Your task to perform on an android device: Clear the cart on ebay.com. Search for "usb-b" on ebay.com, select the first entry, and add it to the cart. Image 0: 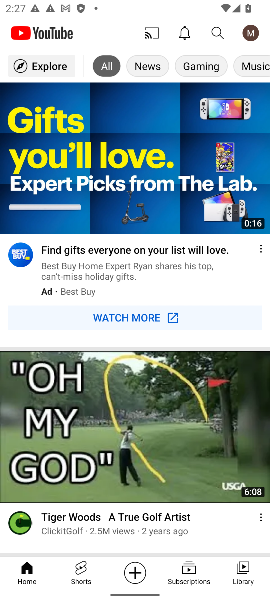
Step 0: press home button
Your task to perform on an android device: Clear the cart on ebay.com. Search for "usb-b" on ebay.com, select the first entry, and add it to the cart. Image 1: 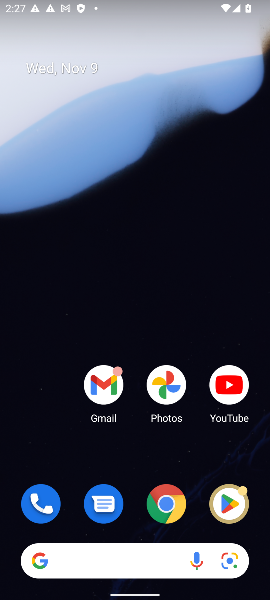
Step 1: click (169, 498)
Your task to perform on an android device: Clear the cart on ebay.com. Search for "usb-b" on ebay.com, select the first entry, and add it to the cart. Image 2: 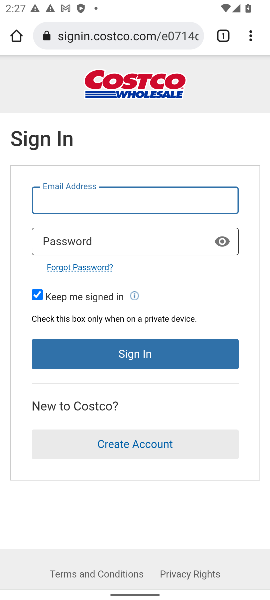
Step 2: click (69, 40)
Your task to perform on an android device: Clear the cart on ebay.com. Search for "usb-b" on ebay.com, select the first entry, and add it to the cart. Image 3: 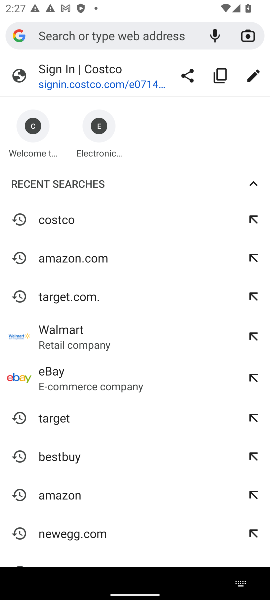
Step 3: click (54, 375)
Your task to perform on an android device: Clear the cart on ebay.com. Search for "usb-b" on ebay.com, select the first entry, and add it to the cart. Image 4: 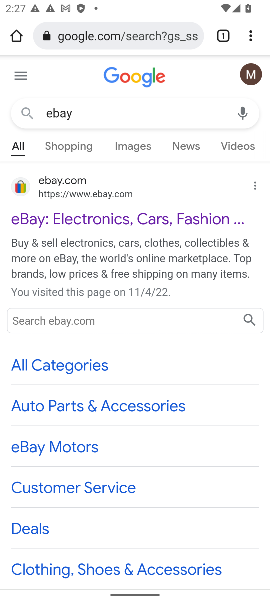
Step 4: click (59, 218)
Your task to perform on an android device: Clear the cart on ebay.com. Search for "usb-b" on ebay.com, select the first entry, and add it to the cart. Image 5: 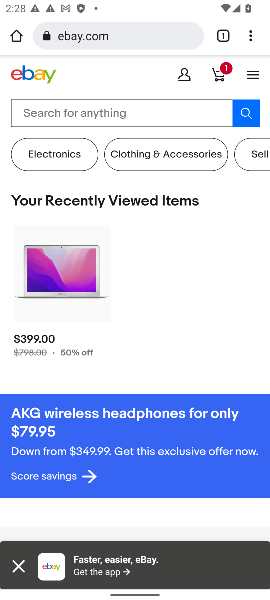
Step 5: click (220, 76)
Your task to perform on an android device: Clear the cart on ebay.com. Search for "usb-b" on ebay.com, select the first entry, and add it to the cart. Image 6: 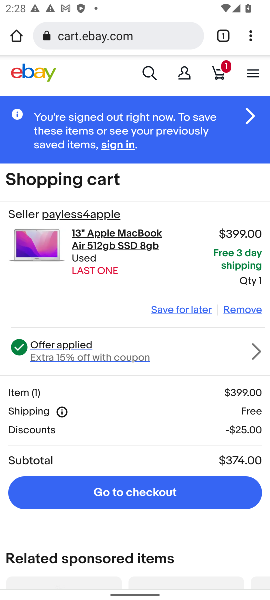
Step 6: click (230, 312)
Your task to perform on an android device: Clear the cart on ebay.com. Search for "usb-b" on ebay.com, select the first entry, and add it to the cart. Image 7: 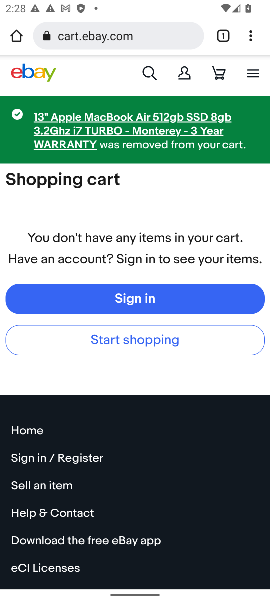
Step 7: click (151, 75)
Your task to perform on an android device: Clear the cart on ebay.com. Search for "usb-b" on ebay.com, select the first entry, and add it to the cart. Image 8: 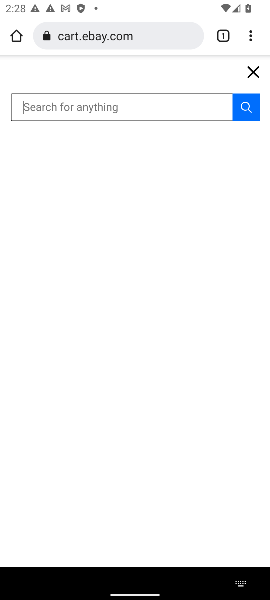
Step 8: type "usb-b"
Your task to perform on an android device: Clear the cart on ebay.com. Search for "usb-b" on ebay.com, select the first entry, and add it to the cart. Image 9: 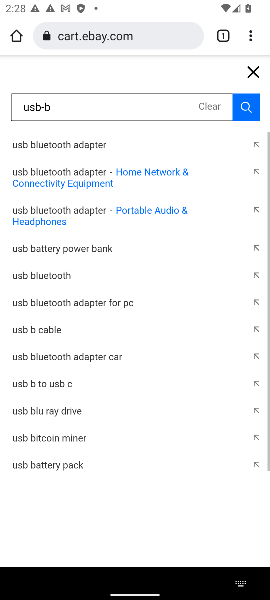
Step 9: click (253, 108)
Your task to perform on an android device: Clear the cart on ebay.com. Search for "usb-b" on ebay.com, select the first entry, and add it to the cart. Image 10: 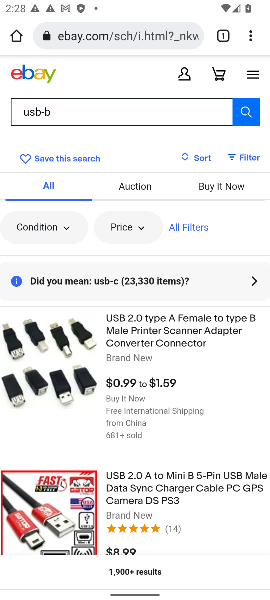
Step 10: click (47, 382)
Your task to perform on an android device: Clear the cart on ebay.com. Search for "usb-b" on ebay.com, select the first entry, and add it to the cart. Image 11: 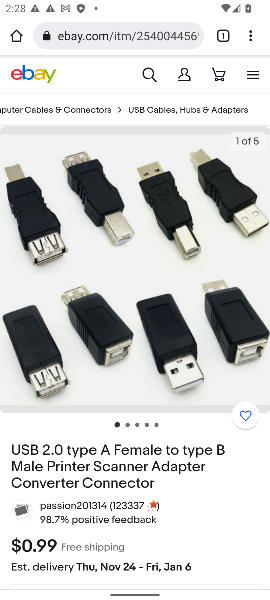
Step 11: drag from (136, 480) to (128, 241)
Your task to perform on an android device: Clear the cart on ebay.com. Search for "usb-b" on ebay.com, select the first entry, and add it to the cart. Image 12: 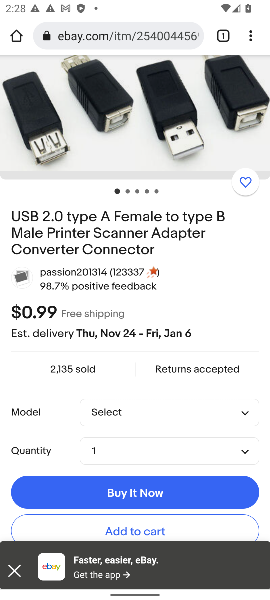
Step 12: drag from (142, 386) to (136, 199)
Your task to perform on an android device: Clear the cart on ebay.com. Search for "usb-b" on ebay.com, select the first entry, and add it to the cart. Image 13: 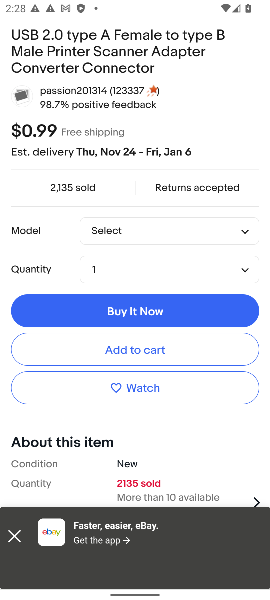
Step 13: click (140, 346)
Your task to perform on an android device: Clear the cart on ebay.com. Search for "usb-b" on ebay.com, select the first entry, and add it to the cart. Image 14: 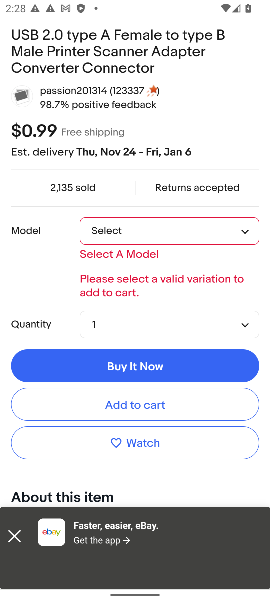
Step 14: click (248, 226)
Your task to perform on an android device: Clear the cart on ebay.com. Search for "usb-b" on ebay.com, select the first entry, and add it to the cart. Image 15: 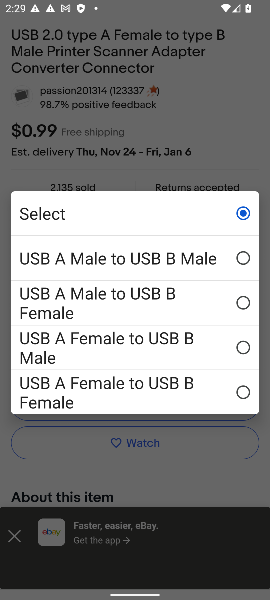
Step 15: click (78, 265)
Your task to perform on an android device: Clear the cart on ebay.com. Search for "usb-b" on ebay.com, select the first entry, and add it to the cart. Image 16: 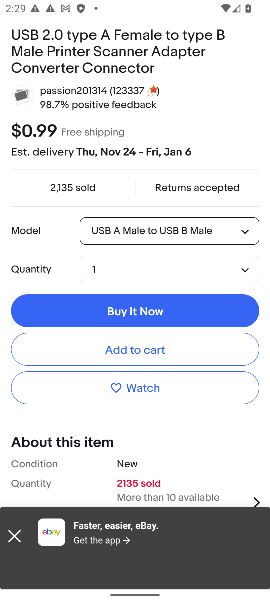
Step 16: click (113, 353)
Your task to perform on an android device: Clear the cart on ebay.com. Search for "usb-b" on ebay.com, select the first entry, and add it to the cart. Image 17: 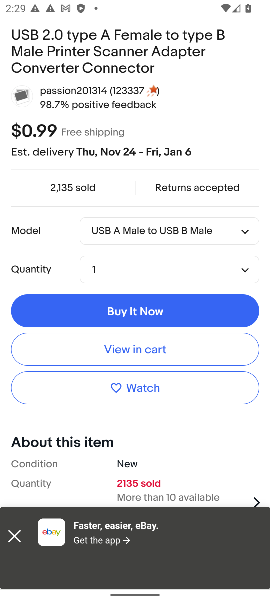
Step 17: task complete